Your task to perform on an android device: Go to battery settings Image 0: 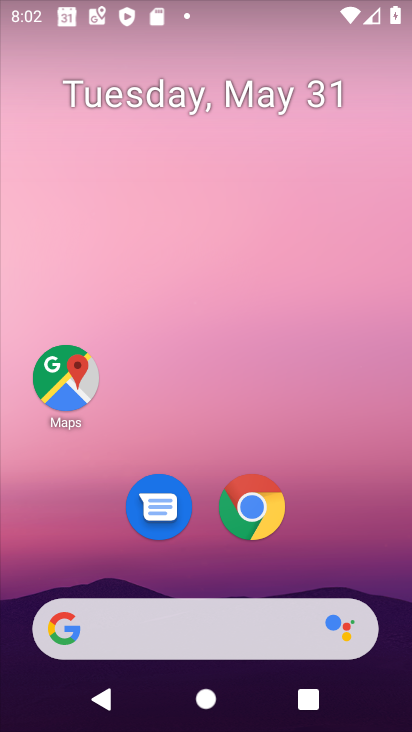
Step 0: drag from (347, 500) to (384, 112)
Your task to perform on an android device: Go to battery settings Image 1: 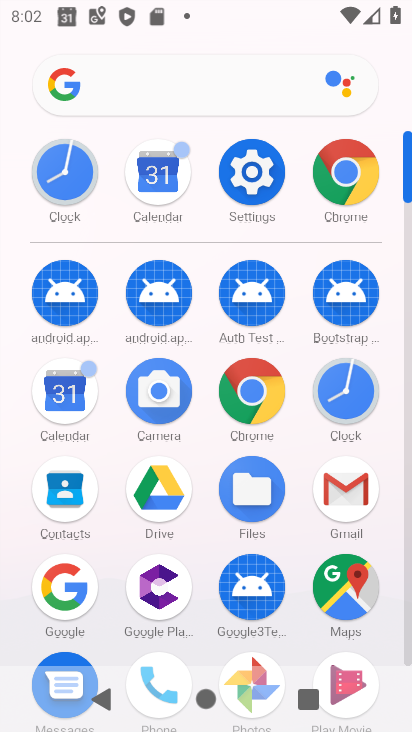
Step 1: click (249, 181)
Your task to perform on an android device: Go to battery settings Image 2: 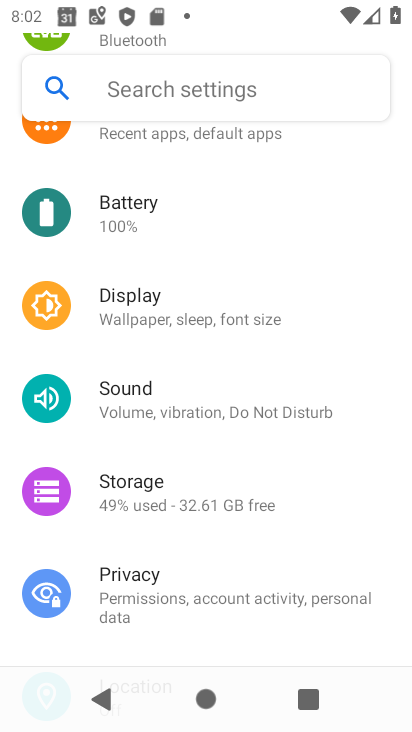
Step 2: drag from (240, 195) to (353, 75)
Your task to perform on an android device: Go to battery settings Image 3: 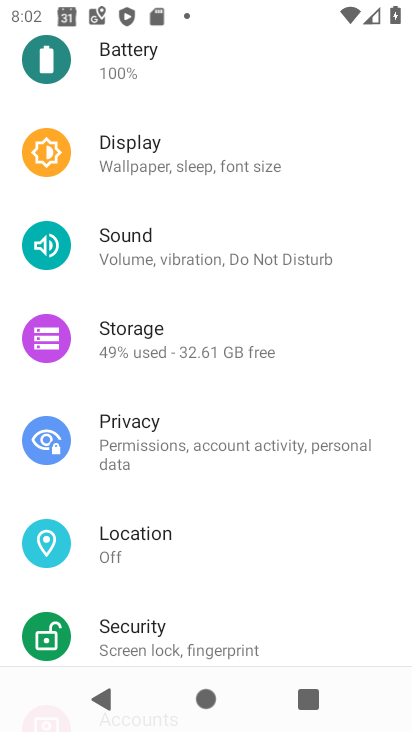
Step 3: click (138, 66)
Your task to perform on an android device: Go to battery settings Image 4: 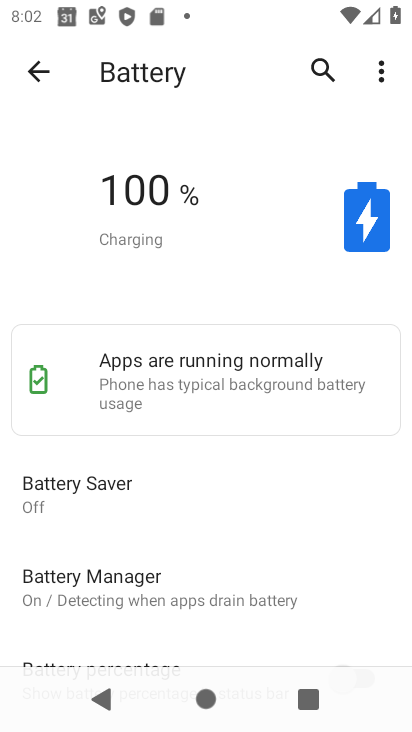
Step 4: task complete